Your task to perform on an android device: turn on wifi Image 0: 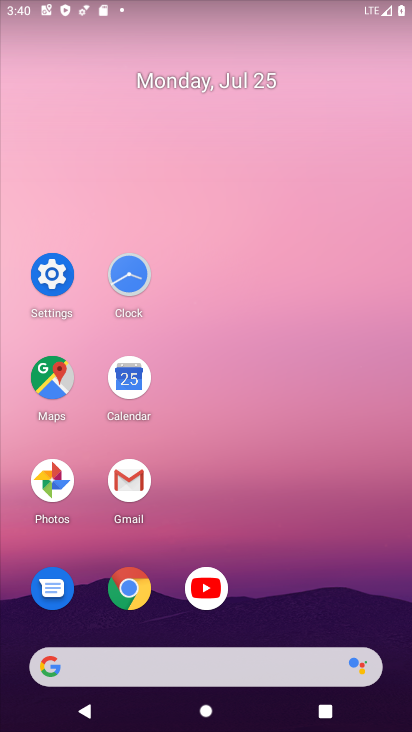
Step 0: click (50, 267)
Your task to perform on an android device: turn on wifi Image 1: 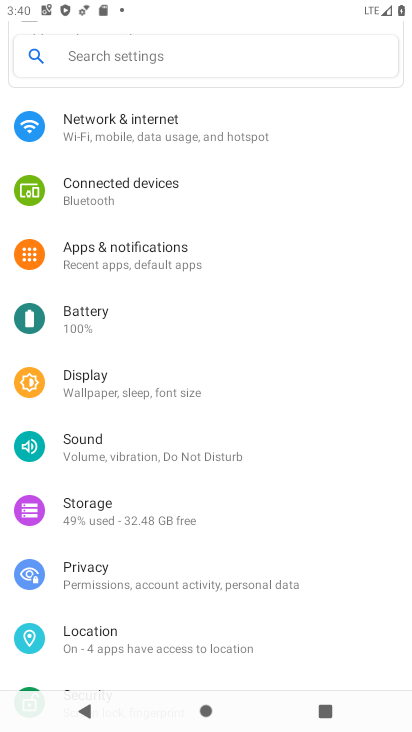
Step 1: click (137, 122)
Your task to perform on an android device: turn on wifi Image 2: 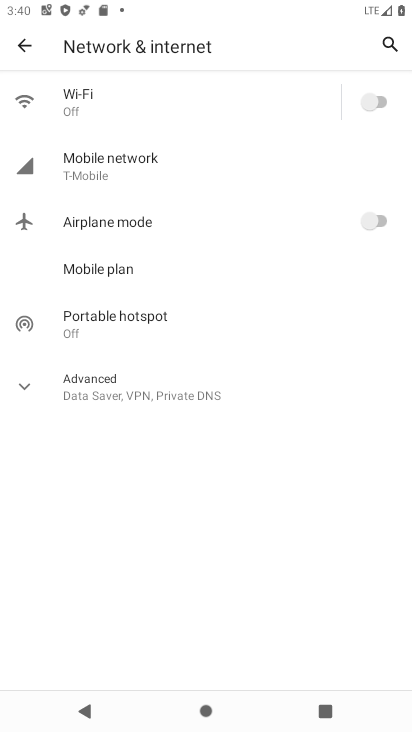
Step 2: click (372, 108)
Your task to perform on an android device: turn on wifi Image 3: 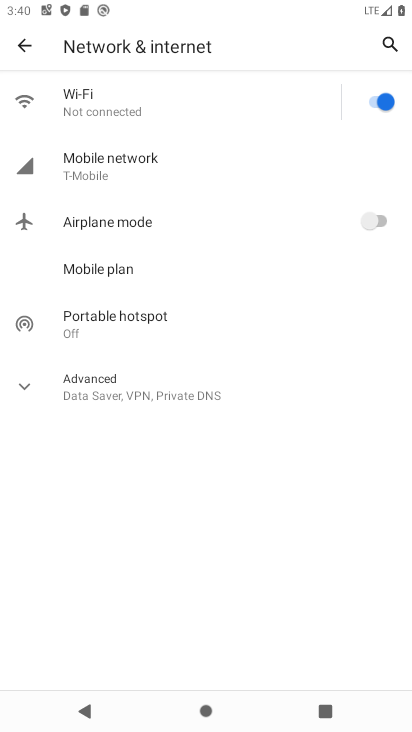
Step 3: task complete